Your task to perform on an android device: open app "Booking.com: Hotels and more" Image 0: 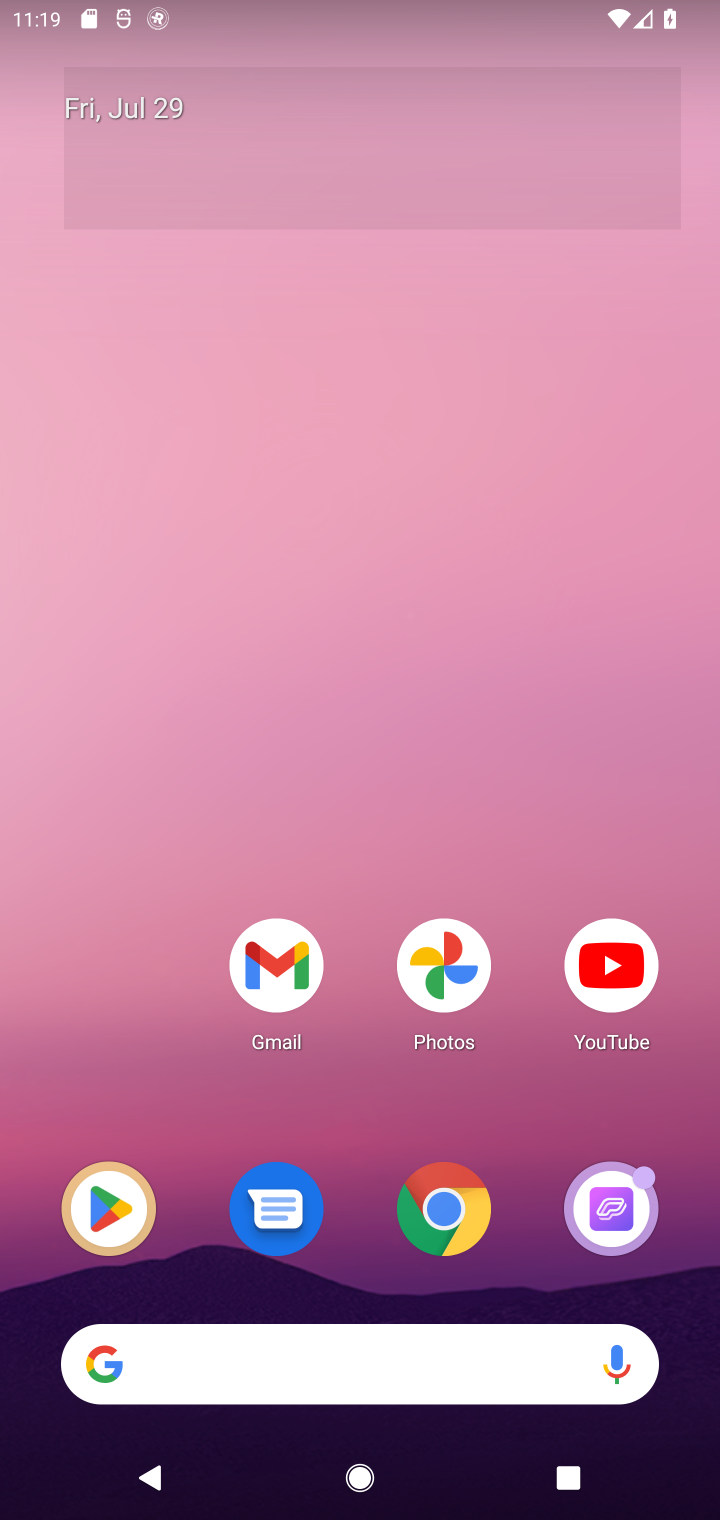
Step 0: drag from (518, 1106) to (553, 74)
Your task to perform on an android device: open app "Booking.com: Hotels and more" Image 1: 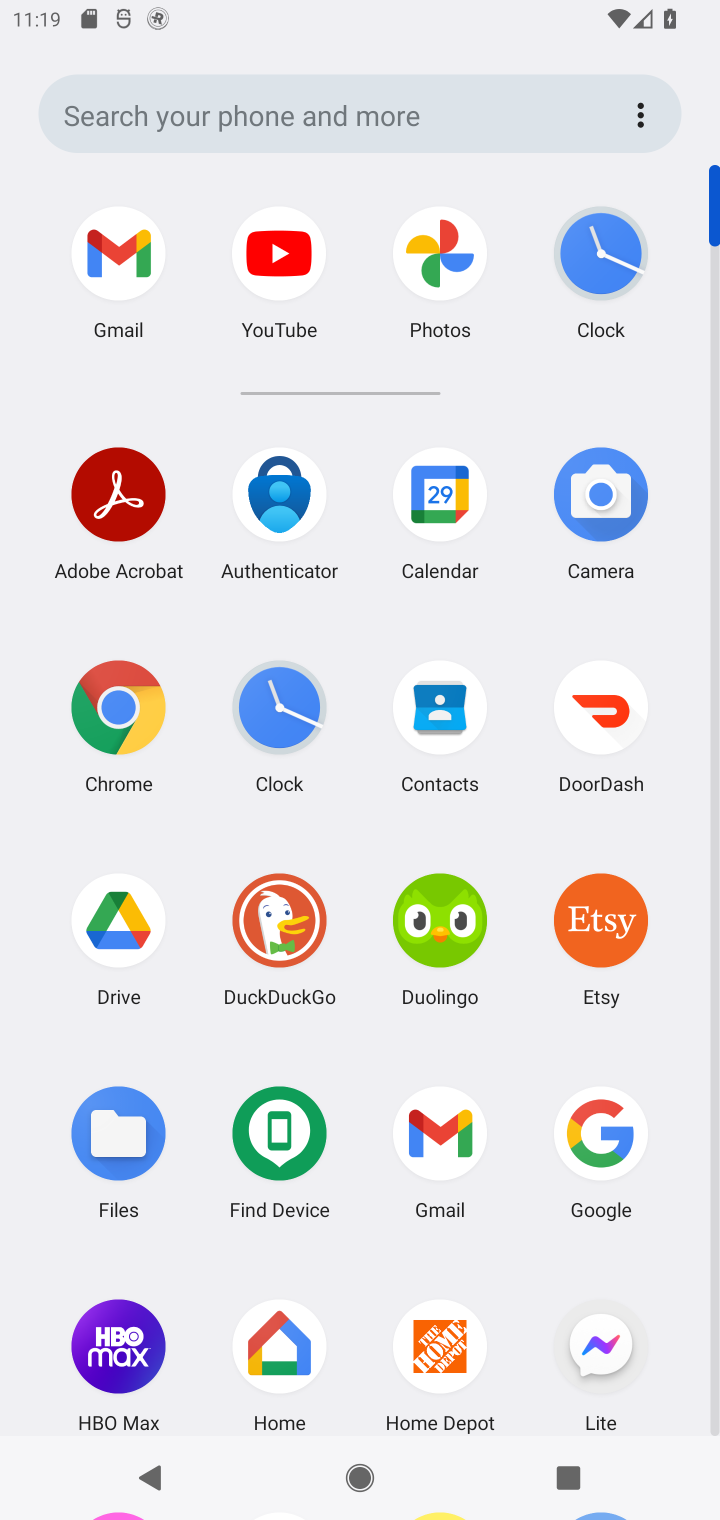
Step 1: drag from (511, 1224) to (570, 392)
Your task to perform on an android device: open app "Booking.com: Hotels and more" Image 2: 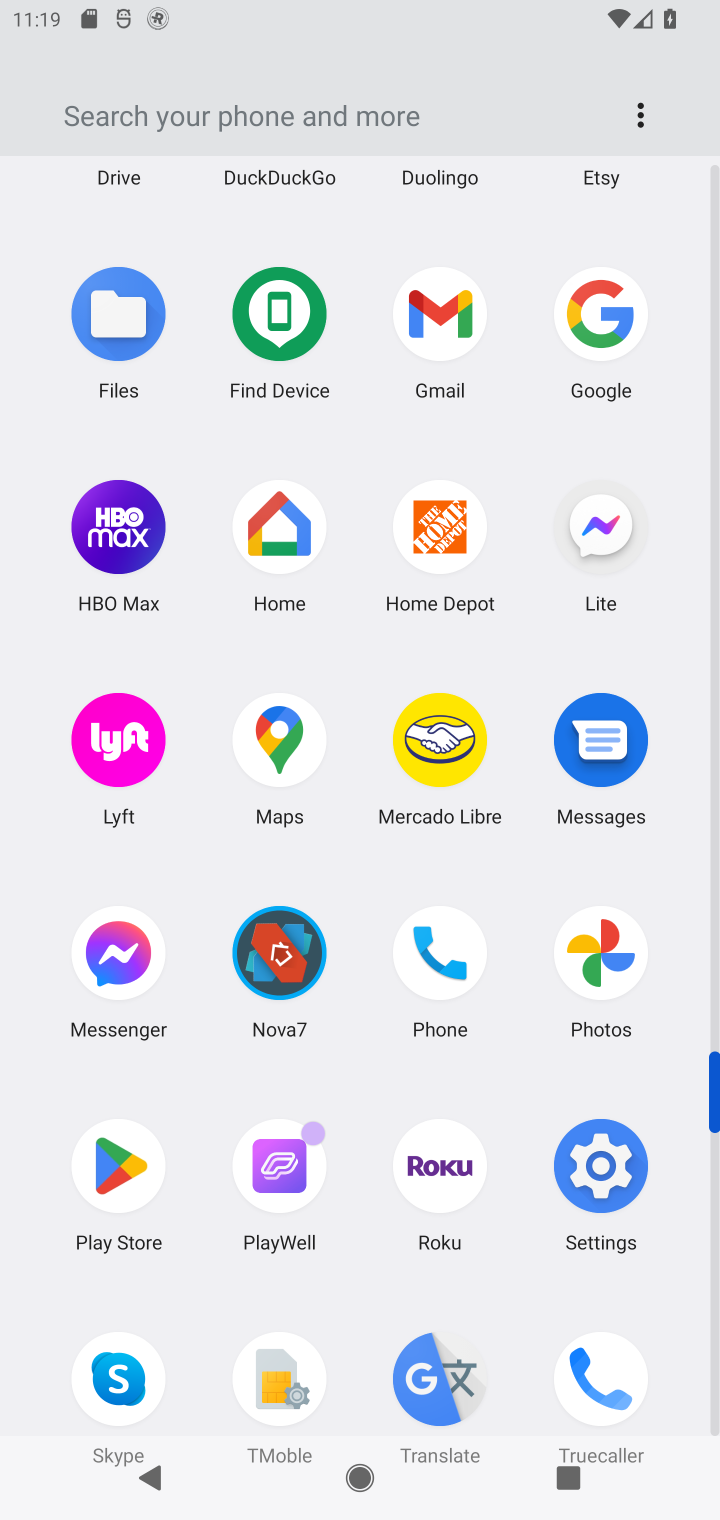
Step 2: click (116, 1186)
Your task to perform on an android device: open app "Booking.com: Hotels and more" Image 3: 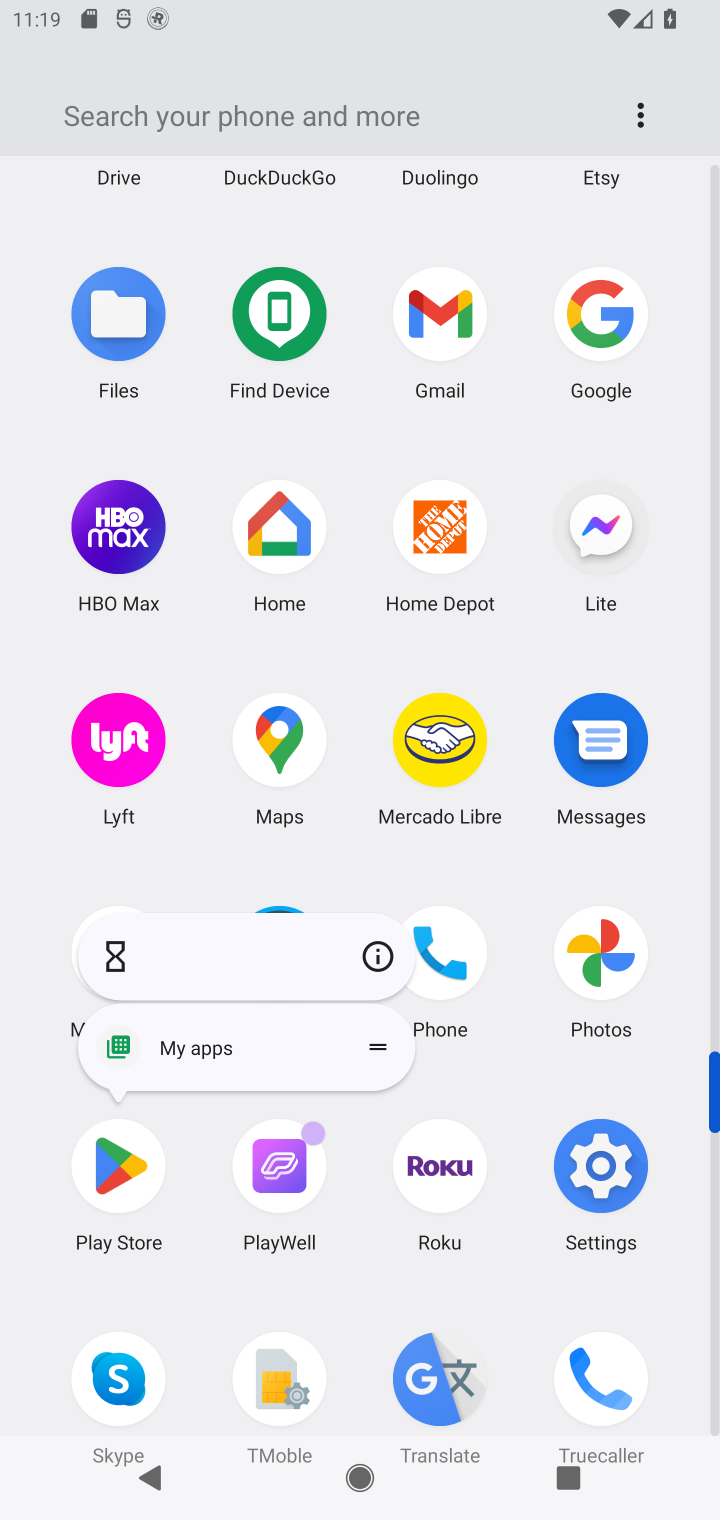
Step 3: click (121, 1154)
Your task to perform on an android device: open app "Booking.com: Hotels and more" Image 4: 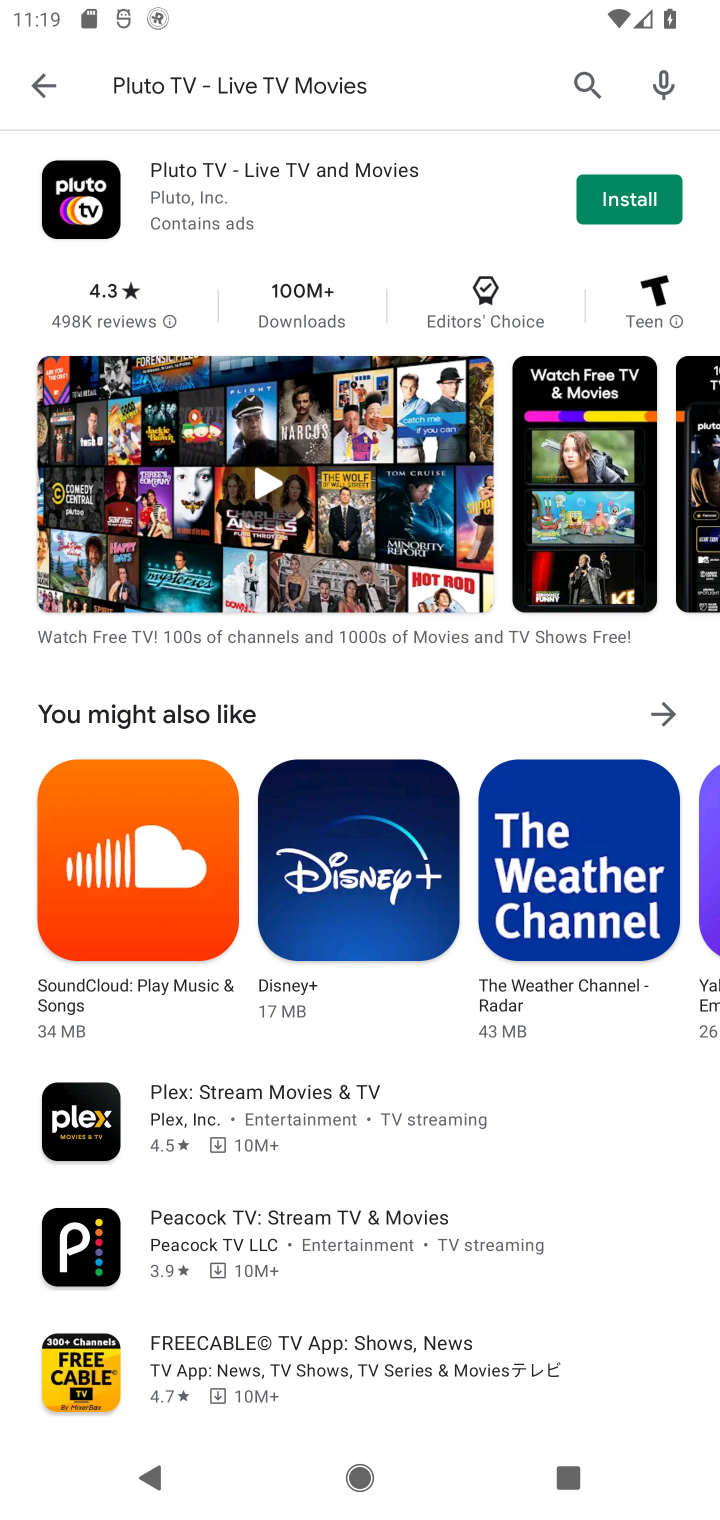
Step 4: click (412, 63)
Your task to perform on an android device: open app "Booking.com: Hotels and more" Image 5: 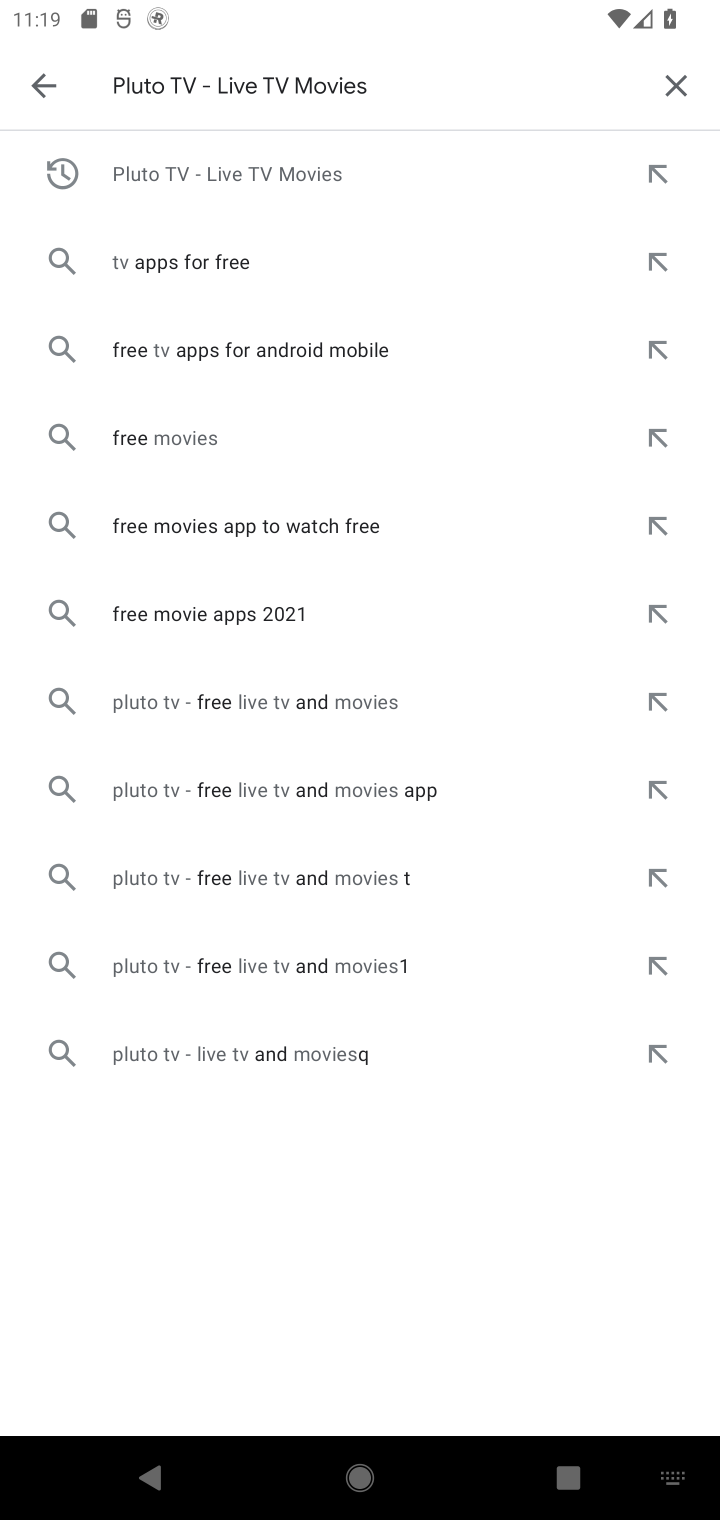
Step 5: click (674, 70)
Your task to perform on an android device: open app "Booking.com: Hotels and more" Image 6: 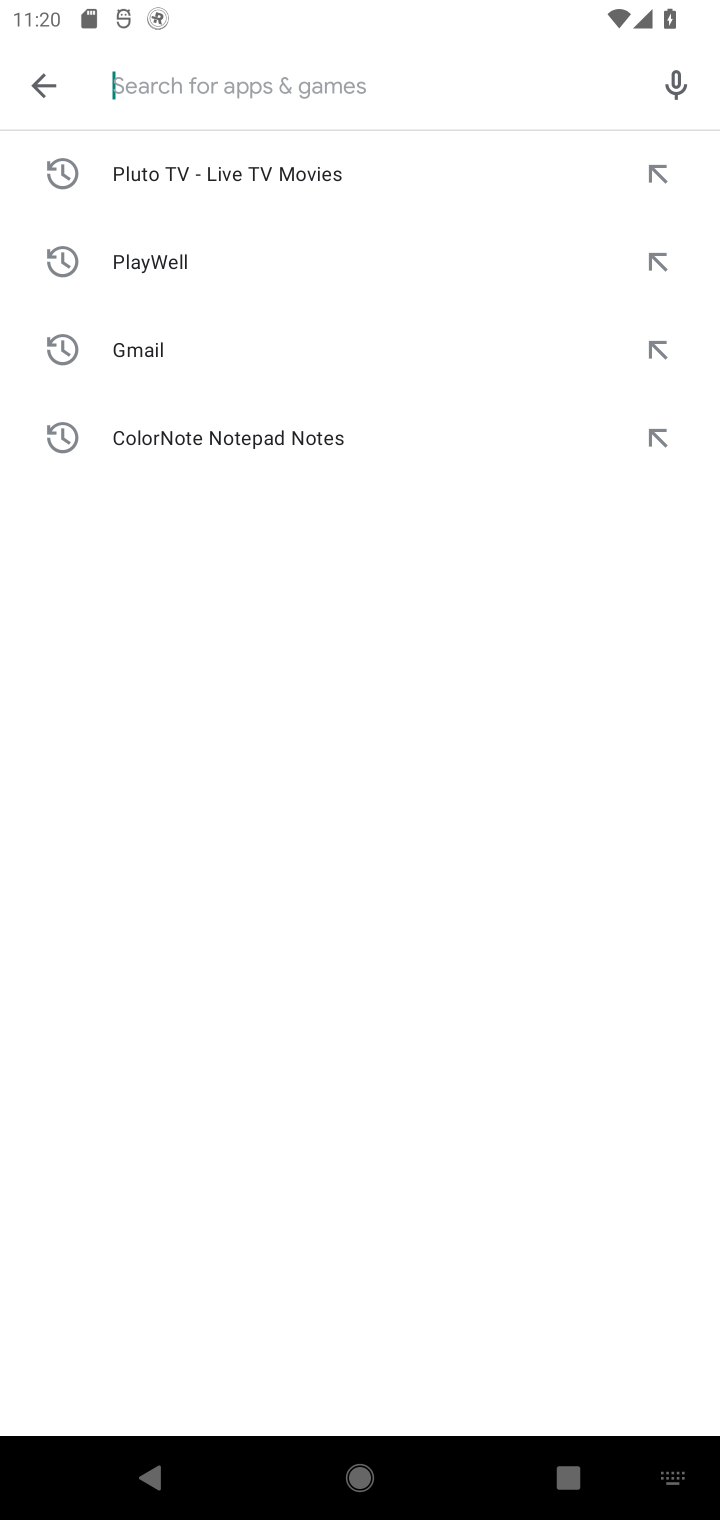
Step 6: type "Booking.com: Hotels and more"
Your task to perform on an android device: open app "Booking.com: Hotels and more" Image 7: 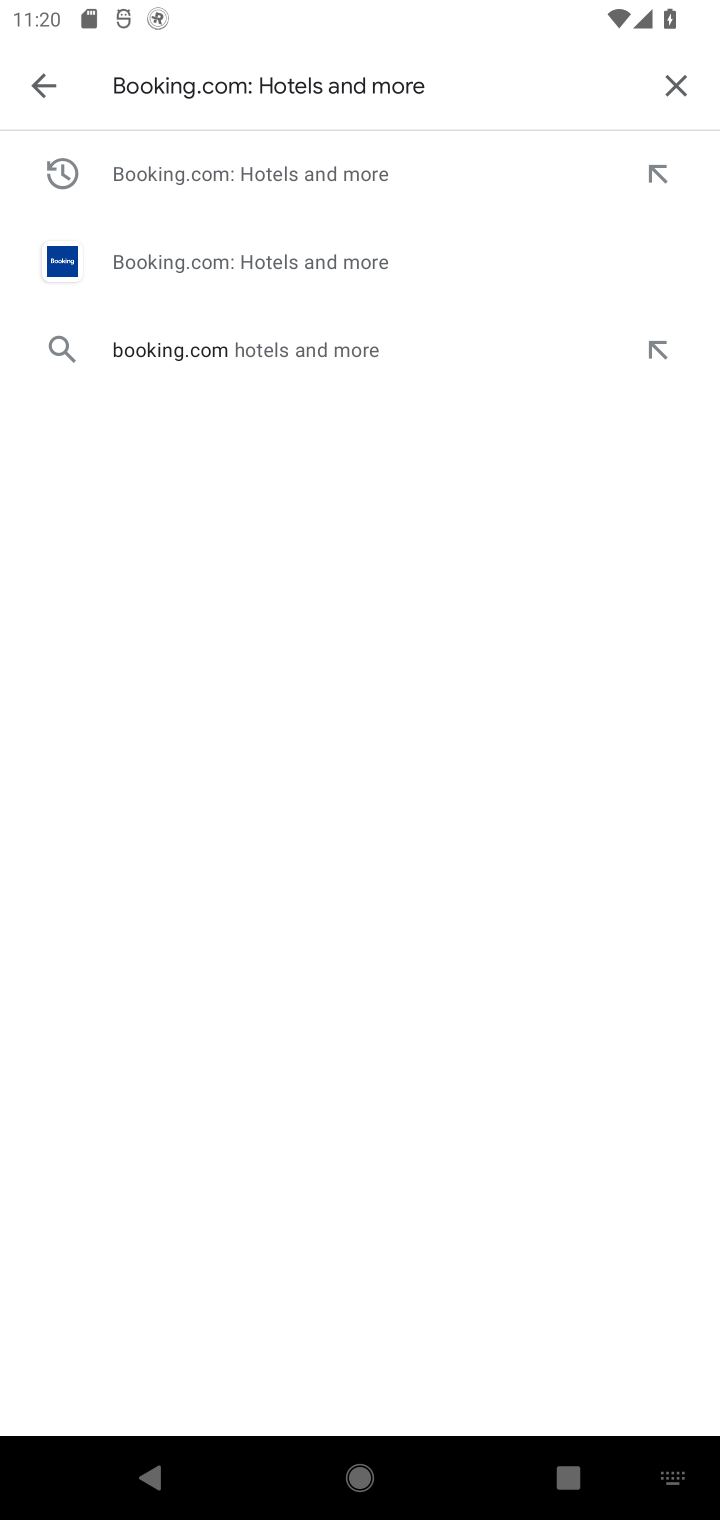
Step 7: press enter
Your task to perform on an android device: open app "Booking.com: Hotels and more" Image 8: 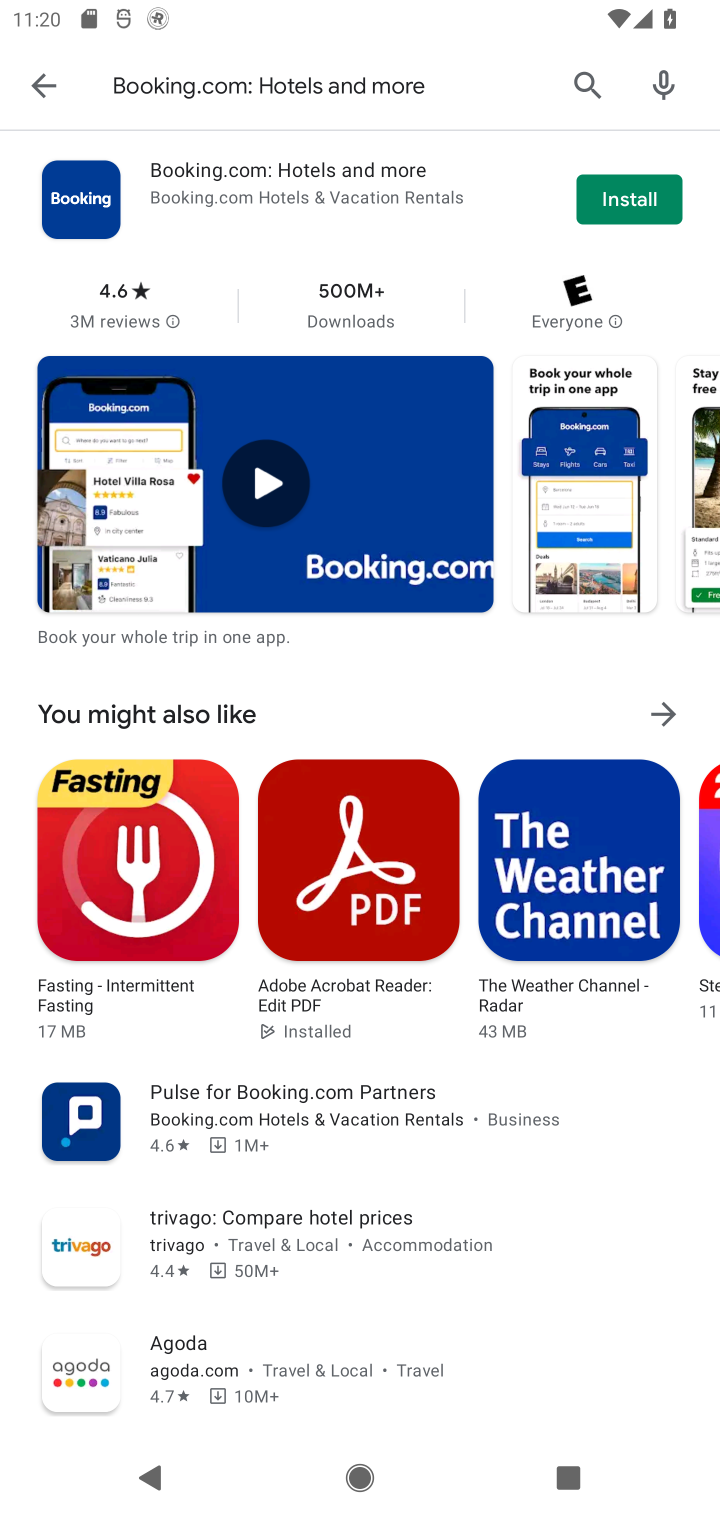
Step 8: task complete